Your task to perform on an android device: search for starred emails in the gmail app Image 0: 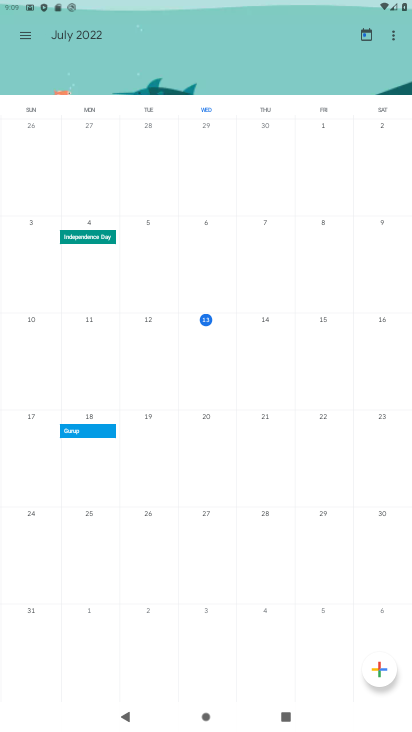
Step 0: press home button
Your task to perform on an android device: search for starred emails in the gmail app Image 1: 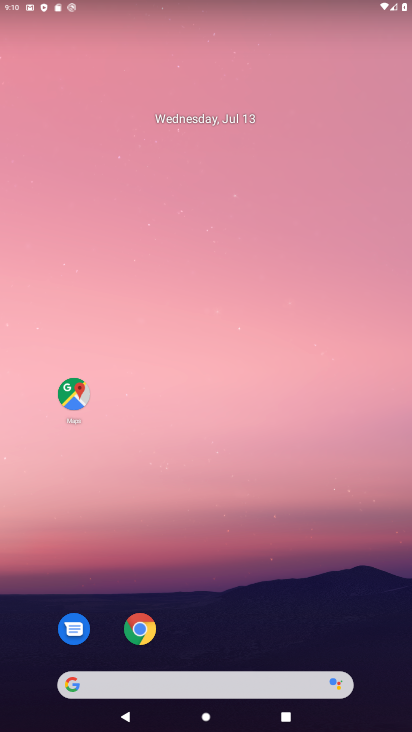
Step 1: drag from (343, 610) to (292, 333)
Your task to perform on an android device: search for starred emails in the gmail app Image 2: 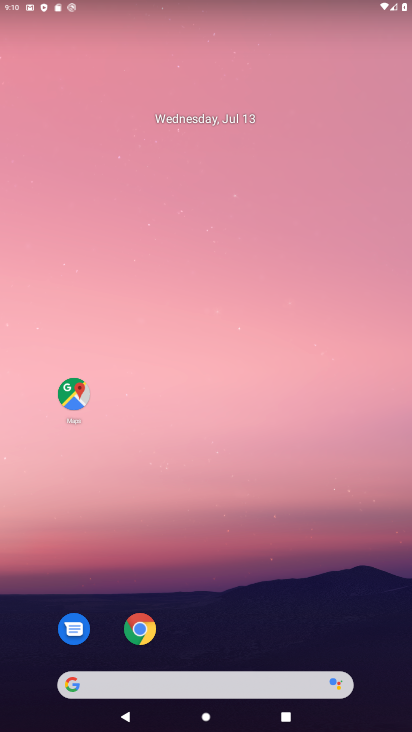
Step 2: drag from (310, 574) to (242, 31)
Your task to perform on an android device: search for starred emails in the gmail app Image 3: 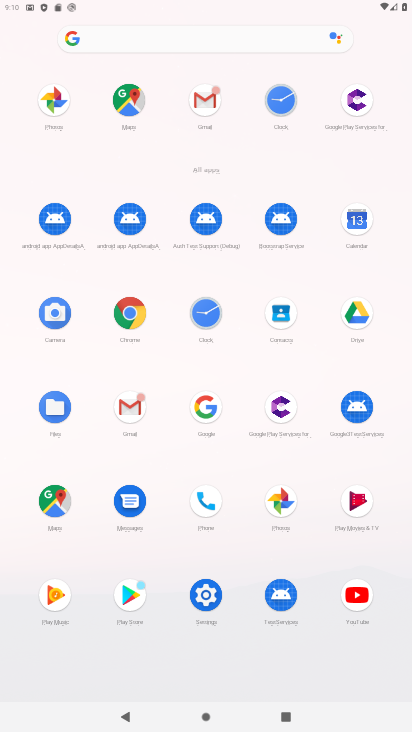
Step 3: click (203, 84)
Your task to perform on an android device: search for starred emails in the gmail app Image 4: 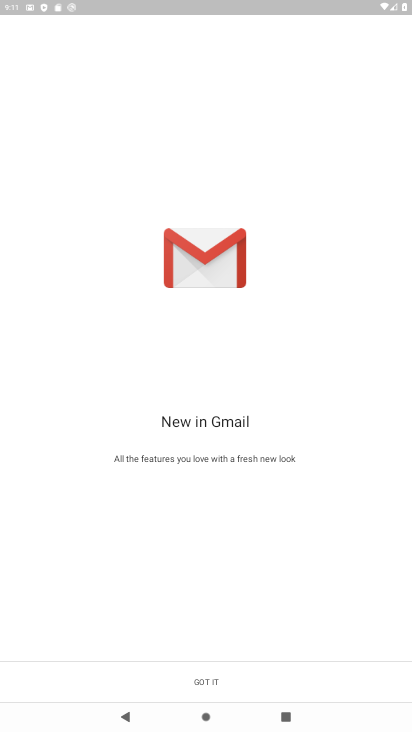
Step 4: click (242, 678)
Your task to perform on an android device: search for starred emails in the gmail app Image 5: 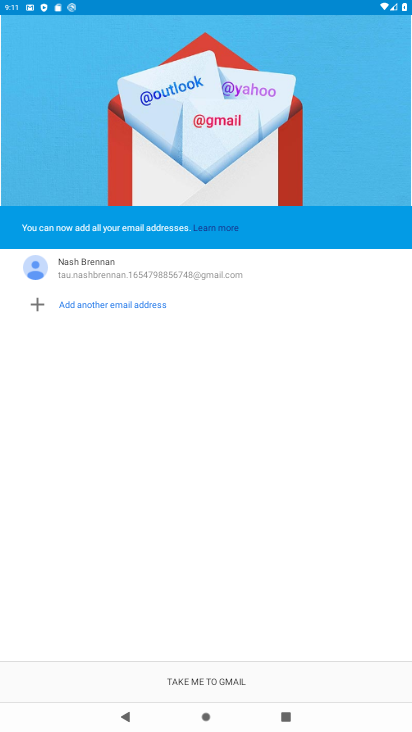
Step 5: click (226, 676)
Your task to perform on an android device: search for starred emails in the gmail app Image 6: 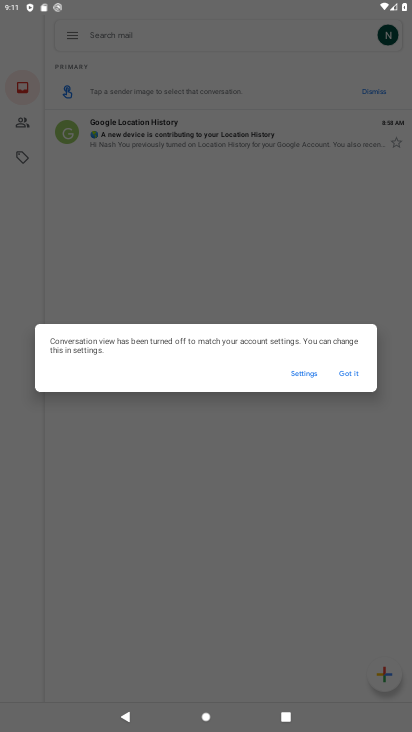
Step 6: click (356, 374)
Your task to perform on an android device: search for starred emails in the gmail app Image 7: 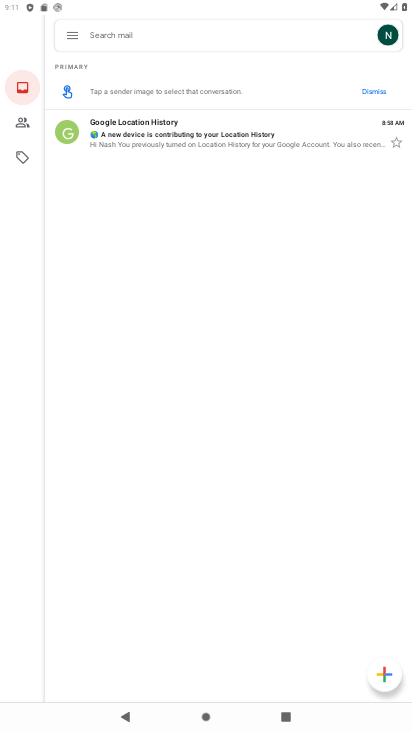
Step 7: click (73, 42)
Your task to perform on an android device: search for starred emails in the gmail app Image 8: 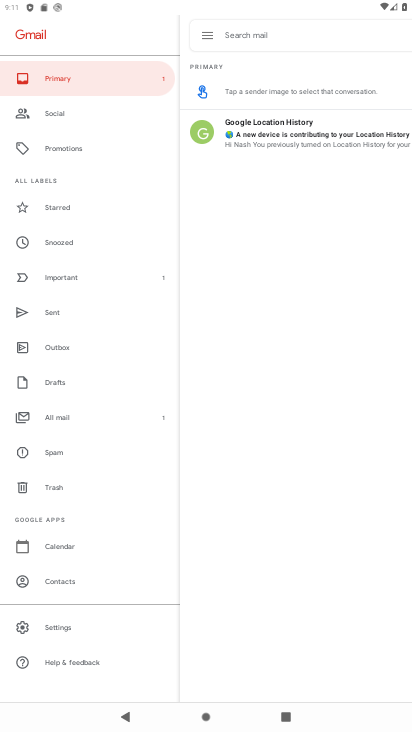
Step 8: click (124, 199)
Your task to perform on an android device: search for starred emails in the gmail app Image 9: 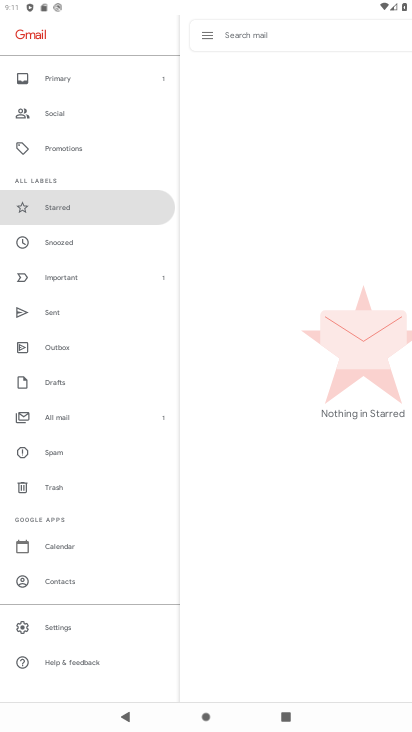
Step 9: task complete